Your task to perform on an android device: When is my next appointment? Image 0: 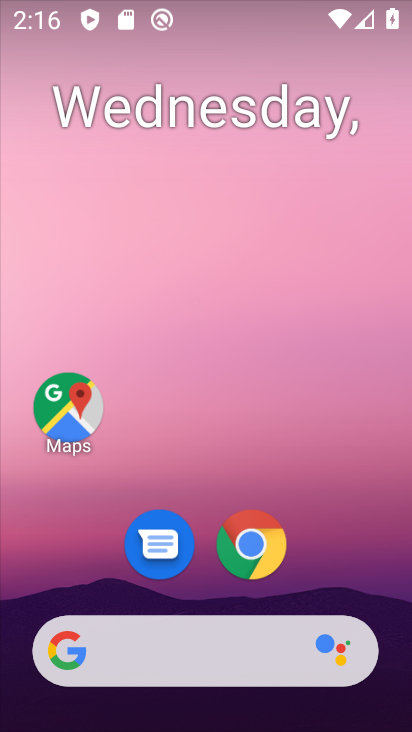
Step 0: drag from (361, 590) to (328, 196)
Your task to perform on an android device: When is my next appointment? Image 1: 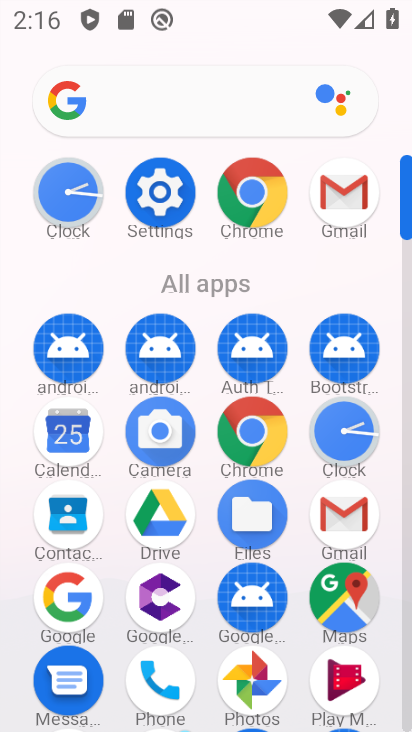
Step 1: click (68, 440)
Your task to perform on an android device: When is my next appointment? Image 2: 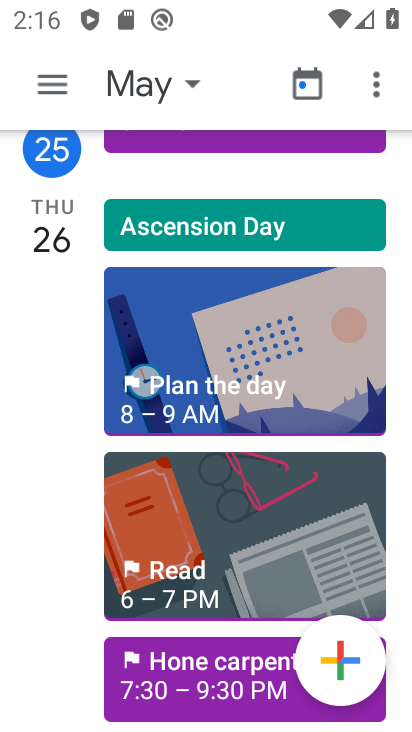
Step 2: task complete